Your task to perform on an android device: change keyboard looks Image 0: 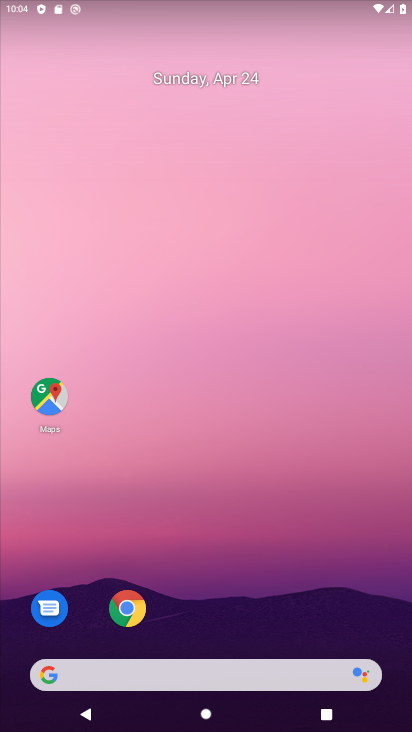
Step 0: drag from (257, 701) to (251, 23)
Your task to perform on an android device: change keyboard looks Image 1: 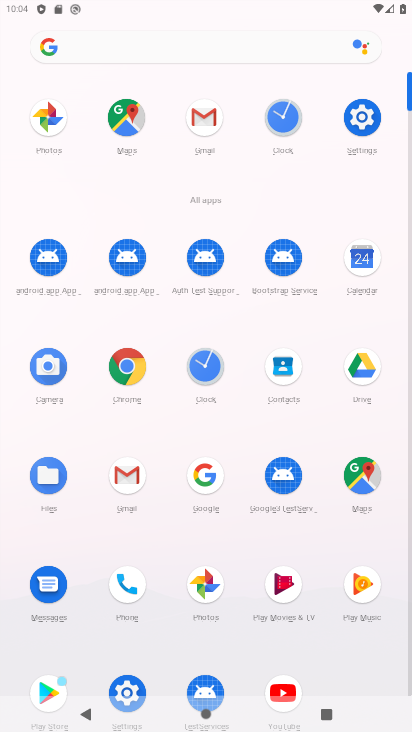
Step 1: click (366, 123)
Your task to perform on an android device: change keyboard looks Image 2: 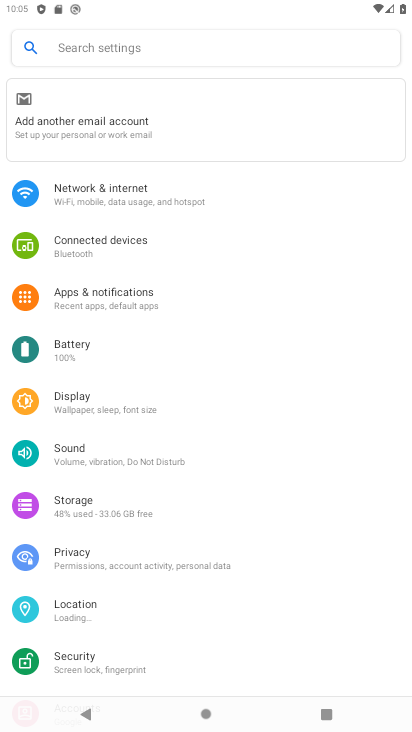
Step 2: click (188, 61)
Your task to perform on an android device: change keyboard looks Image 3: 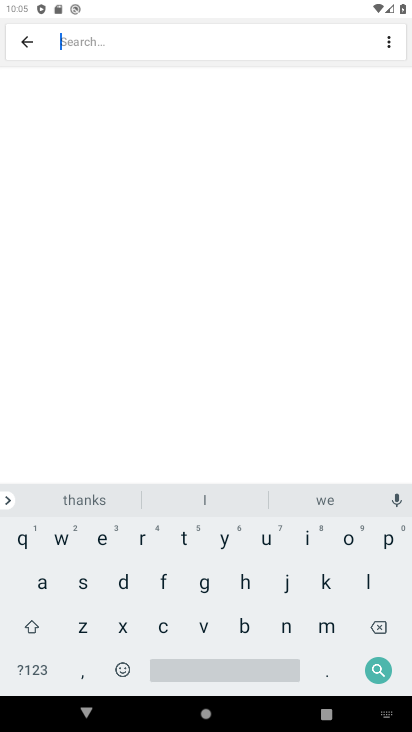
Step 3: click (324, 588)
Your task to perform on an android device: change keyboard looks Image 4: 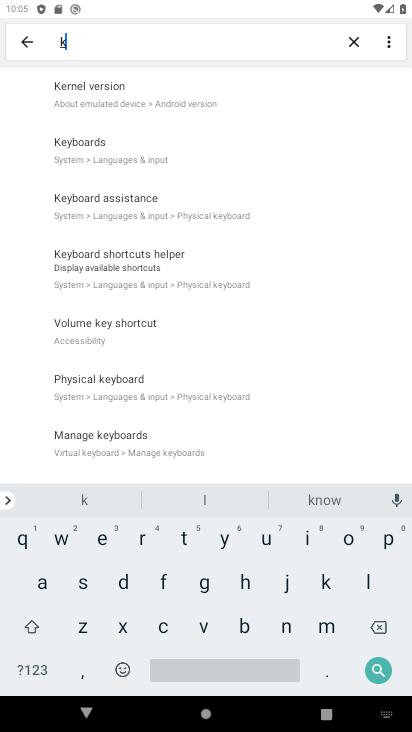
Step 4: click (97, 540)
Your task to perform on an android device: change keyboard looks Image 5: 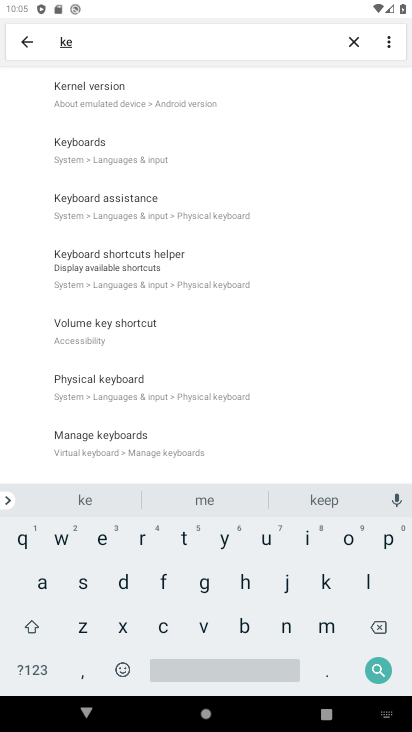
Step 5: click (227, 544)
Your task to perform on an android device: change keyboard looks Image 6: 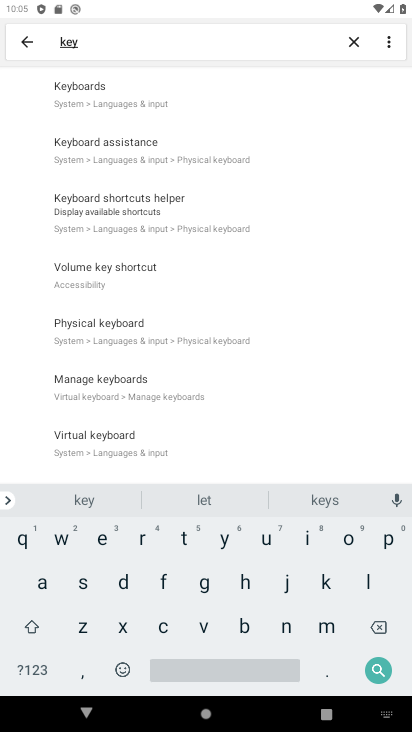
Step 6: click (164, 103)
Your task to perform on an android device: change keyboard looks Image 7: 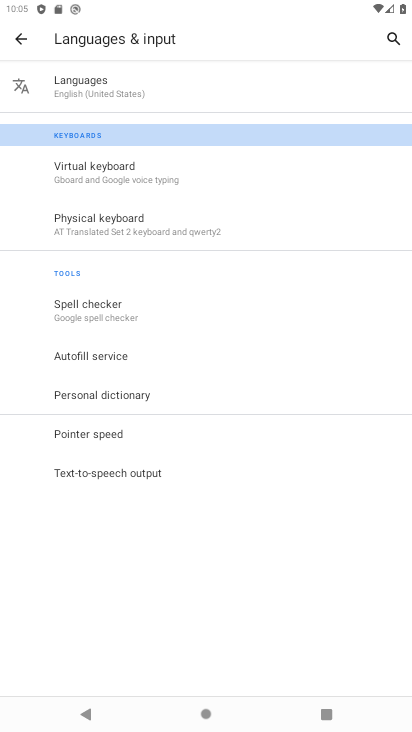
Step 7: click (142, 178)
Your task to perform on an android device: change keyboard looks Image 8: 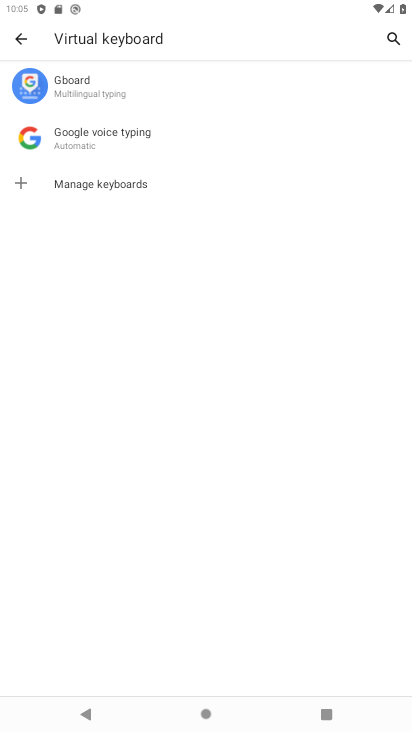
Step 8: click (108, 102)
Your task to perform on an android device: change keyboard looks Image 9: 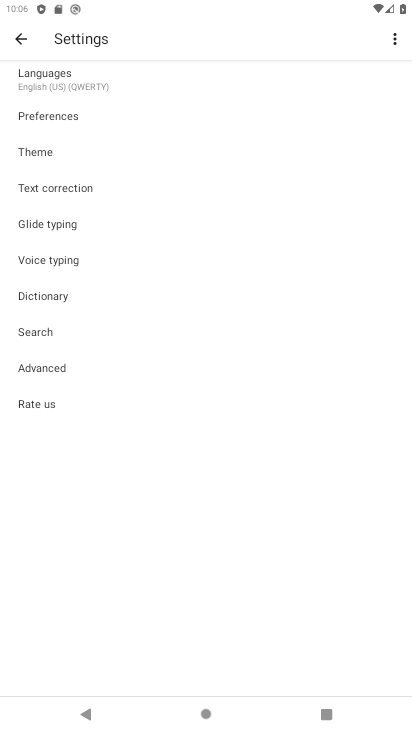
Step 9: click (55, 160)
Your task to perform on an android device: change keyboard looks Image 10: 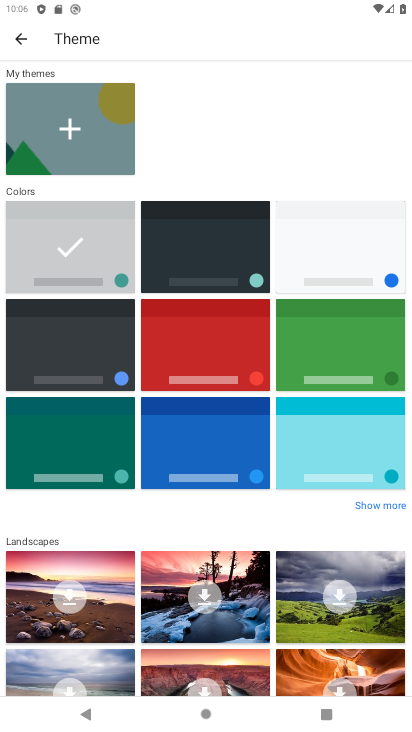
Step 10: click (71, 438)
Your task to perform on an android device: change keyboard looks Image 11: 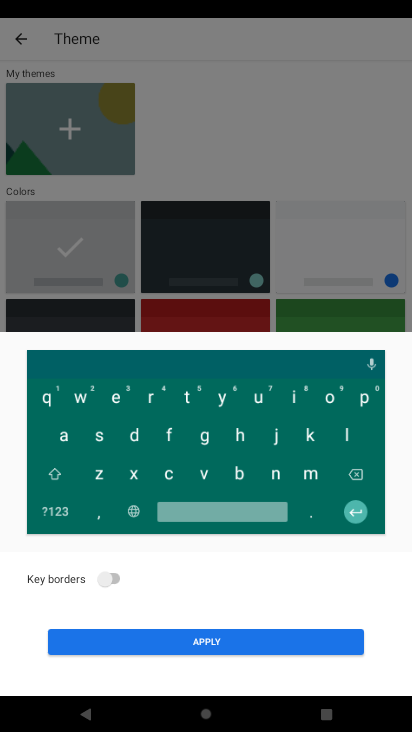
Step 11: click (110, 589)
Your task to perform on an android device: change keyboard looks Image 12: 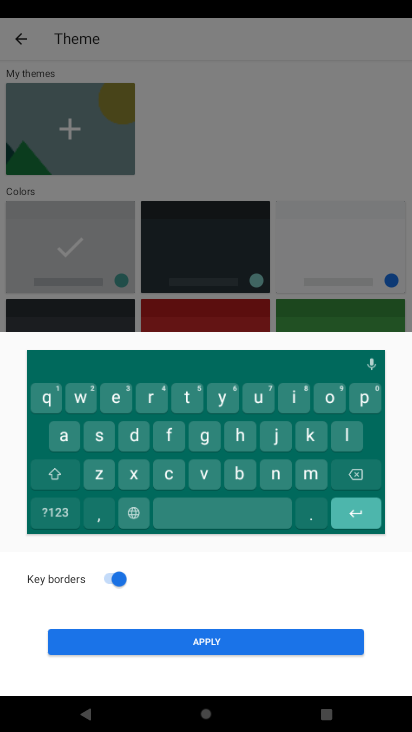
Step 12: click (166, 639)
Your task to perform on an android device: change keyboard looks Image 13: 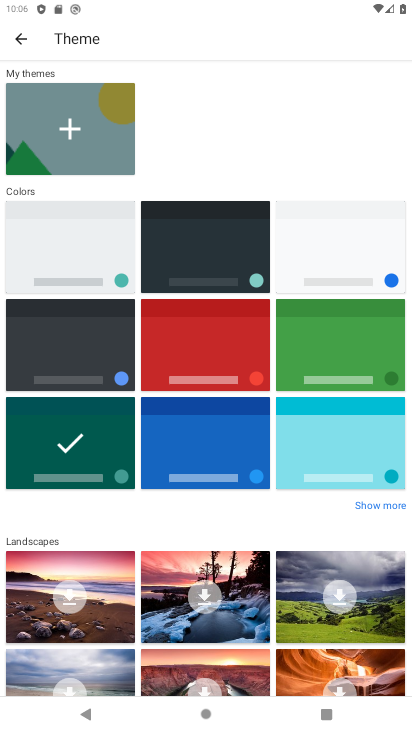
Step 13: task complete